Your task to perform on an android device: allow cookies in the chrome app Image 0: 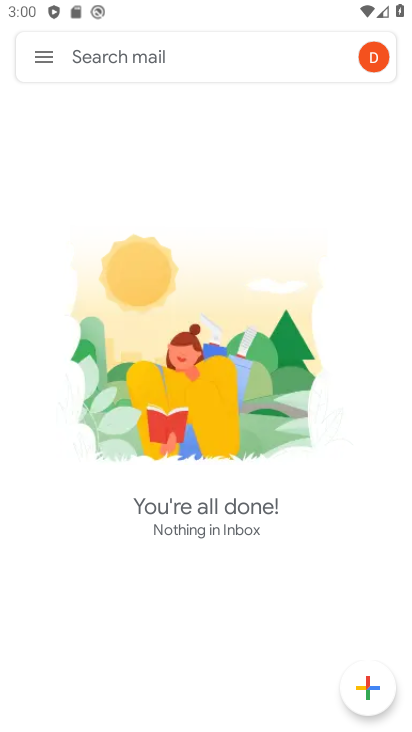
Step 0: press home button
Your task to perform on an android device: allow cookies in the chrome app Image 1: 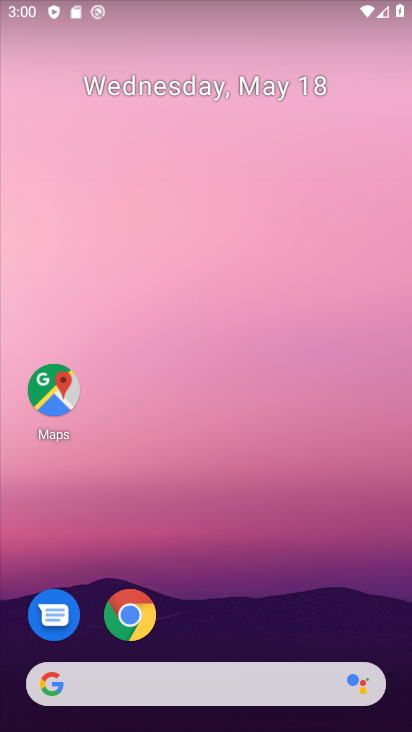
Step 1: click (127, 629)
Your task to perform on an android device: allow cookies in the chrome app Image 2: 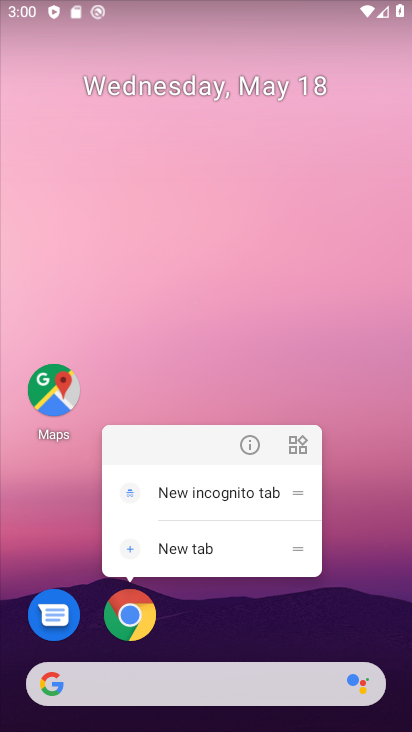
Step 2: click (138, 625)
Your task to perform on an android device: allow cookies in the chrome app Image 3: 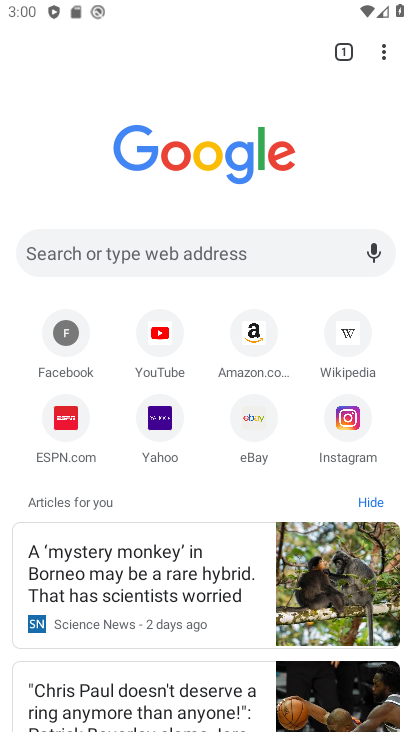
Step 3: drag from (395, 53) to (318, 434)
Your task to perform on an android device: allow cookies in the chrome app Image 4: 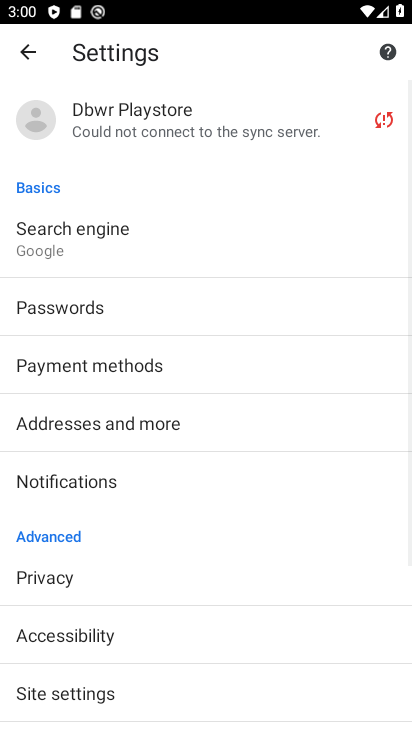
Step 4: drag from (247, 625) to (364, 301)
Your task to perform on an android device: allow cookies in the chrome app Image 5: 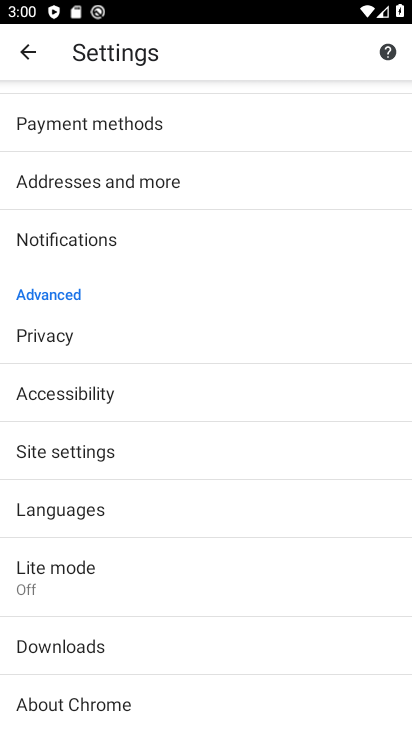
Step 5: click (157, 458)
Your task to perform on an android device: allow cookies in the chrome app Image 6: 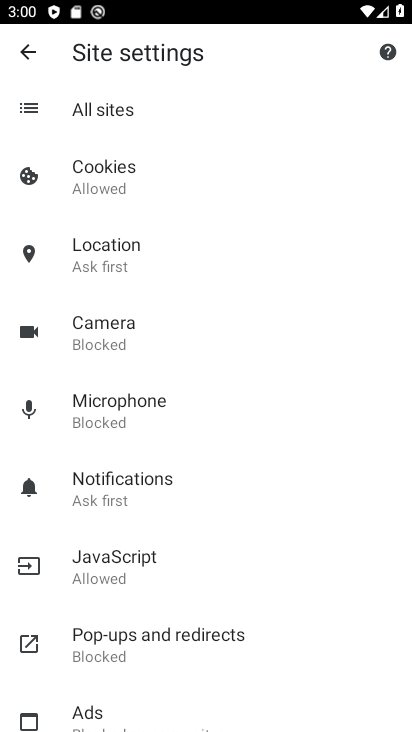
Step 6: click (194, 196)
Your task to perform on an android device: allow cookies in the chrome app Image 7: 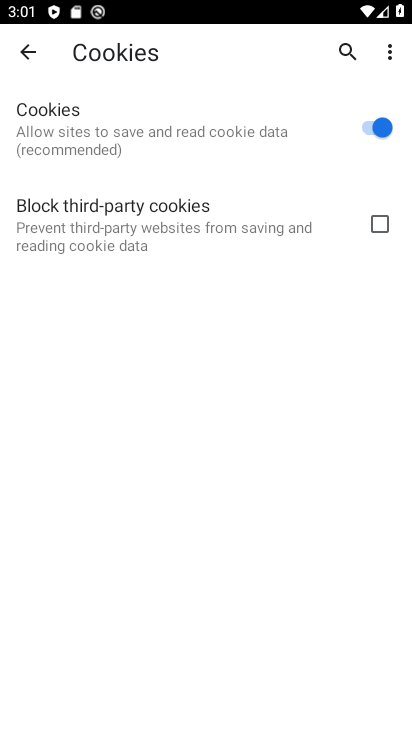
Step 7: task complete